Your task to perform on an android device: Check the news Image 0: 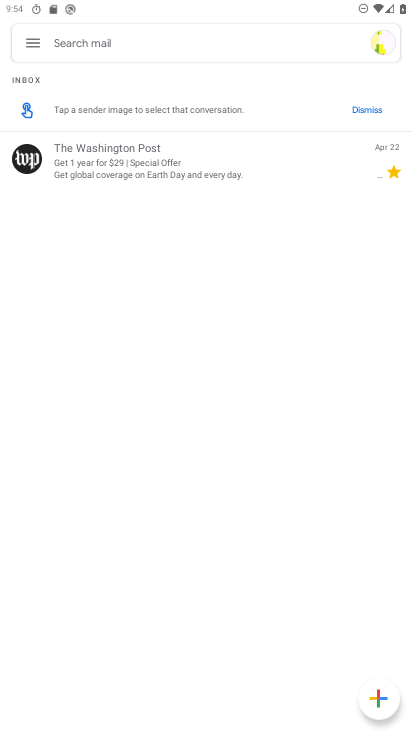
Step 0: press home button
Your task to perform on an android device: Check the news Image 1: 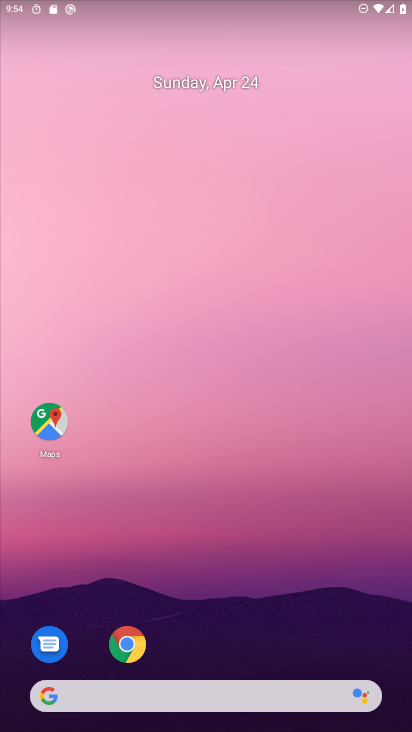
Step 1: task complete